Your task to perform on an android device: empty trash in google photos Image 0: 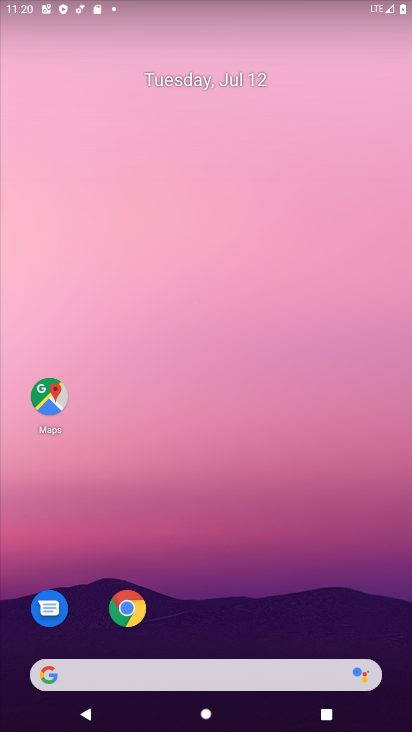
Step 0: drag from (154, 628) to (172, 63)
Your task to perform on an android device: empty trash in google photos Image 1: 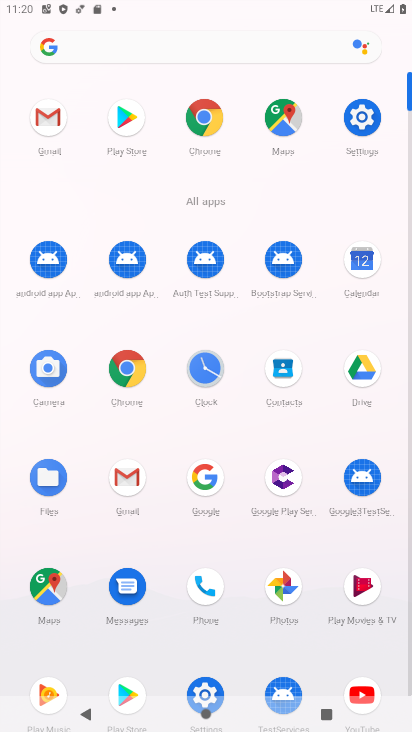
Step 1: click (285, 591)
Your task to perform on an android device: empty trash in google photos Image 2: 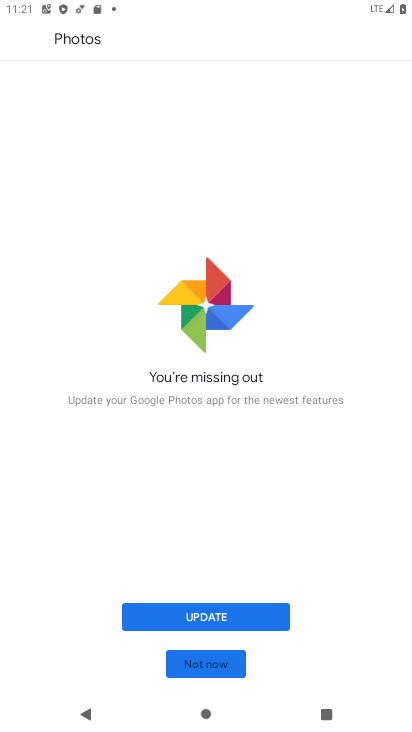
Step 2: click (211, 664)
Your task to perform on an android device: empty trash in google photos Image 3: 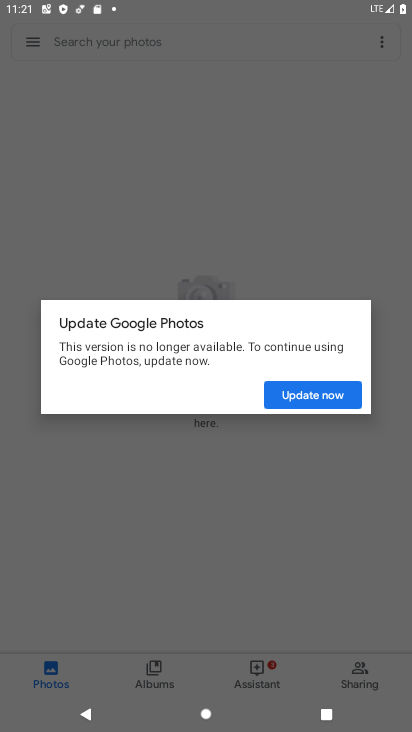
Step 3: click (322, 382)
Your task to perform on an android device: empty trash in google photos Image 4: 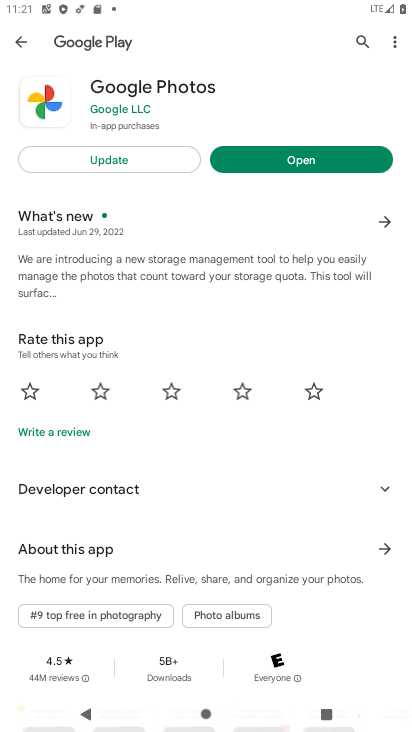
Step 4: click (297, 153)
Your task to perform on an android device: empty trash in google photos Image 5: 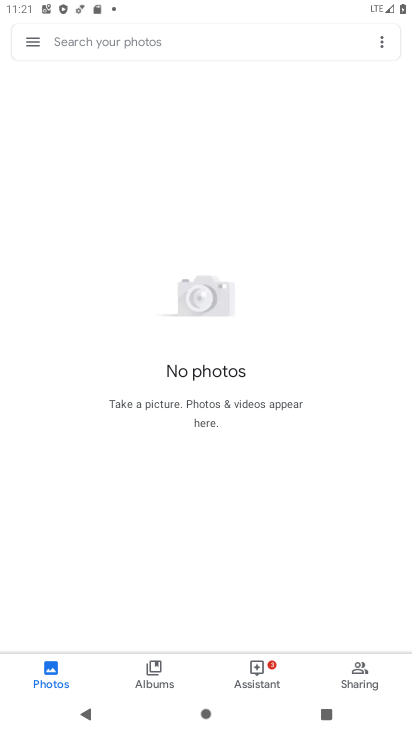
Step 5: click (35, 40)
Your task to perform on an android device: empty trash in google photos Image 6: 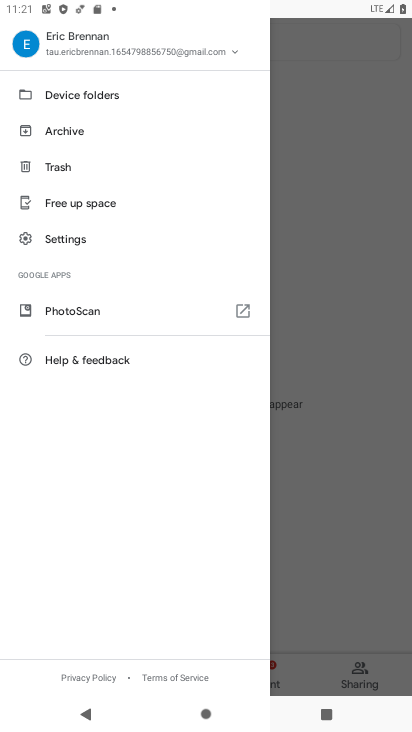
Step 6: click (112, 169)
Your task to perform on an android device: empty trash in google photos Image 7: 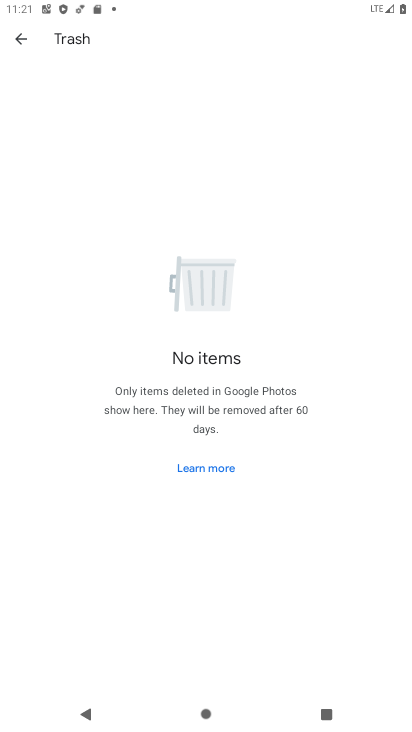
Step 7: task complete